Your task to perform on an android device: Go to Google Image 0: 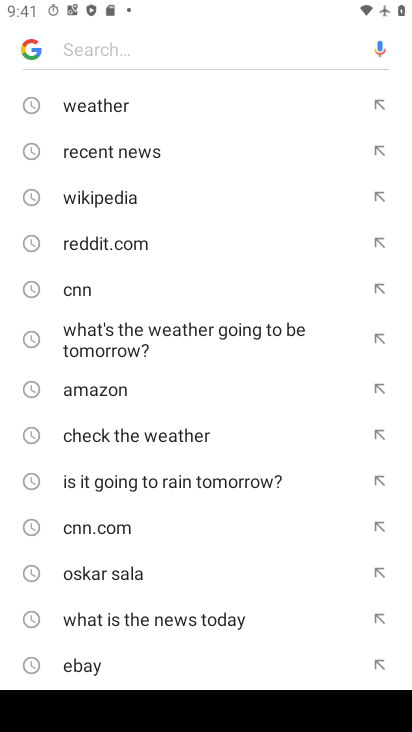
Step 0: press home button
Your task to perform on an android device: Go to Google Image 1: 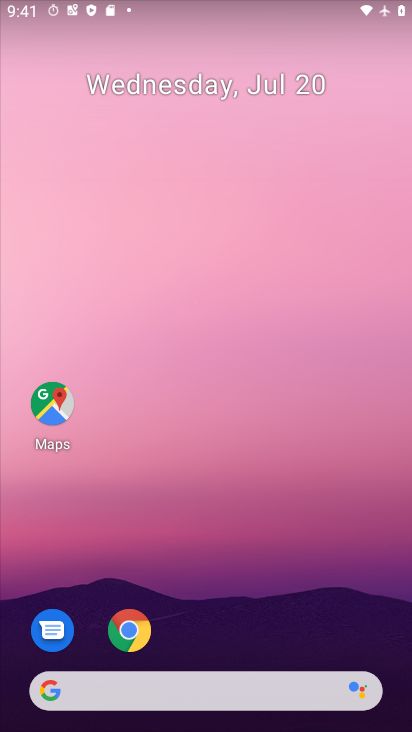
Step 1: drag from (177, 675) to (262, 108)
Your task to perform on an android device: Go to Google Image 2: 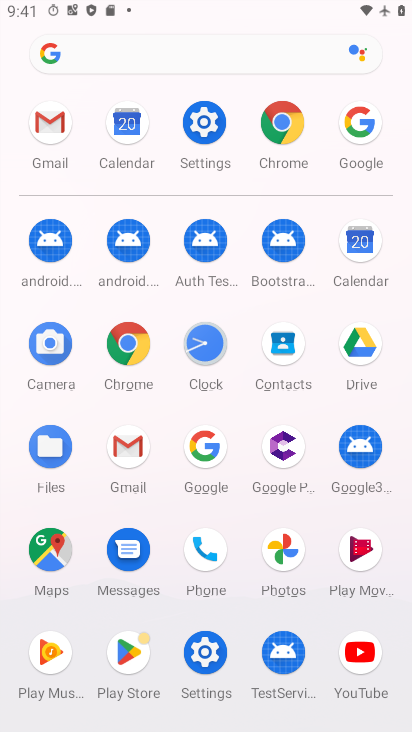
Step 2: drag from (251, 480) to (288, 277)
Your task to perform on an android device: Go to Google Image 3: 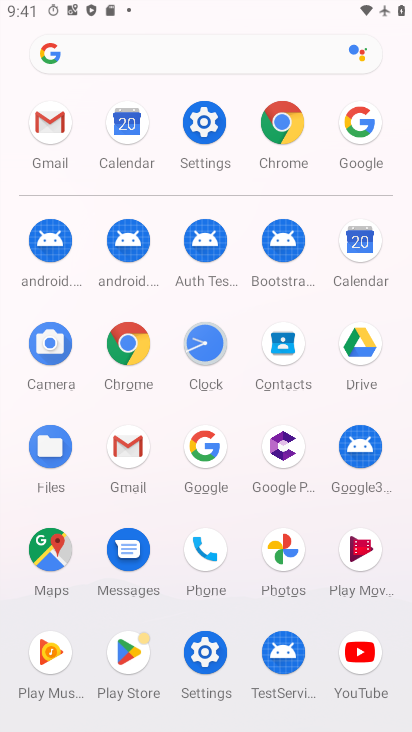
Step 3: click (140, 348)
Your task to perform on an android device: Go to Google Image 4: 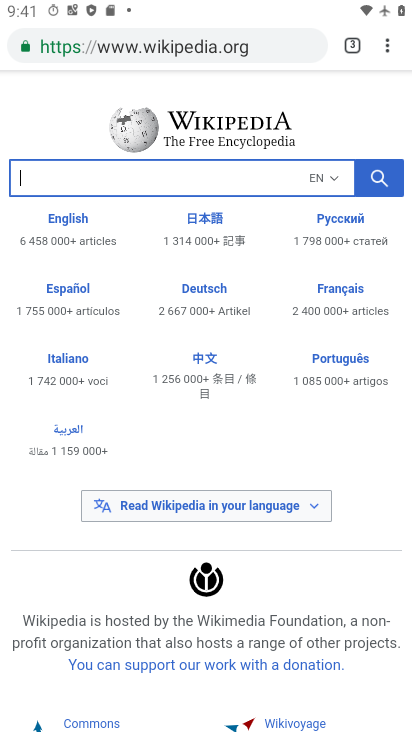
Step 4: task complete